Your task to perform on an android device: Go to internet settings Image 0: 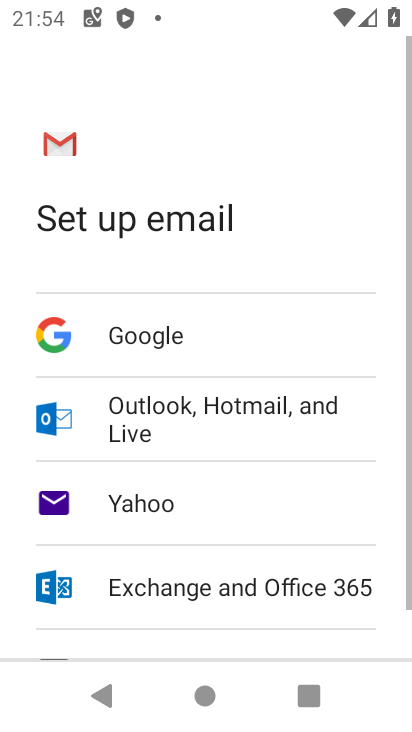
Step 0: press home button
Your task to perform on an android device: Go to internet settings Image 1: 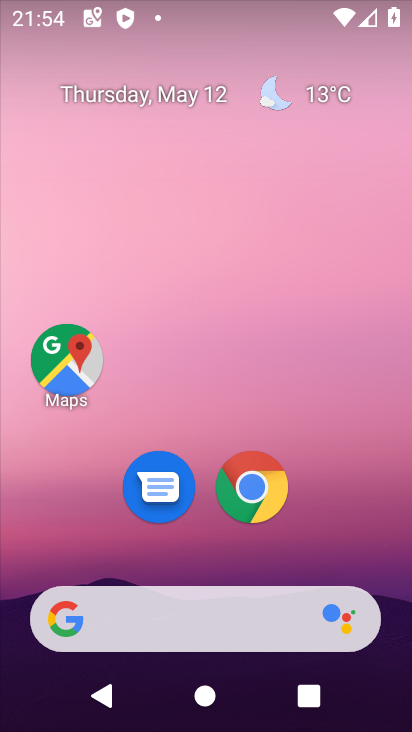
Step 1: drag from (230, 13) to (162, 654)
Your task to perform on an android device: Go to internet settings Image 2: 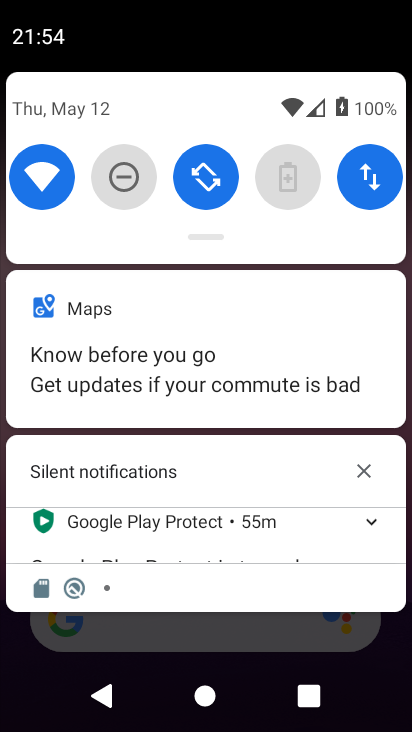
Step 2: click (392, 184)
Your task to perform on an android device: Go to internet settings Image 3: 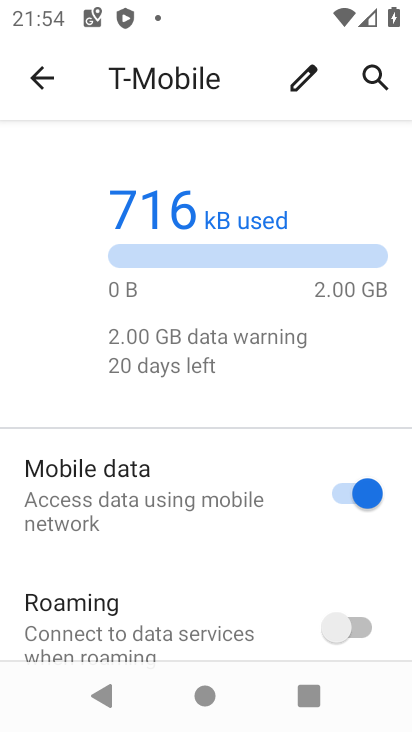
Step 3: task complete